Your task to perform on an android device: allow cookies in the chrome app Image 0: 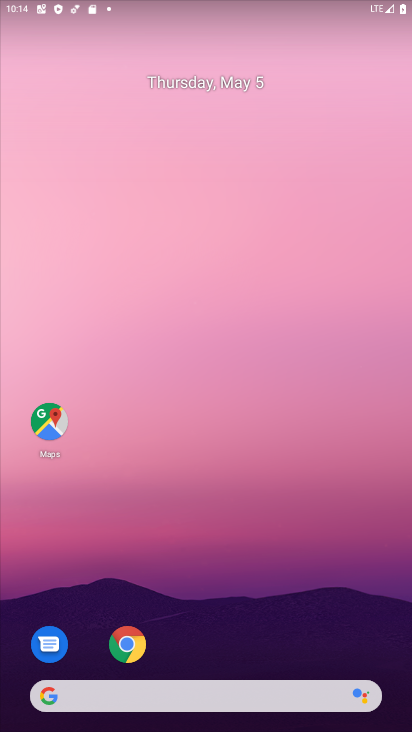
Step 0: click (122, 642)
Your task to perform on an android device: allow cookies in the chrome app Image 1: 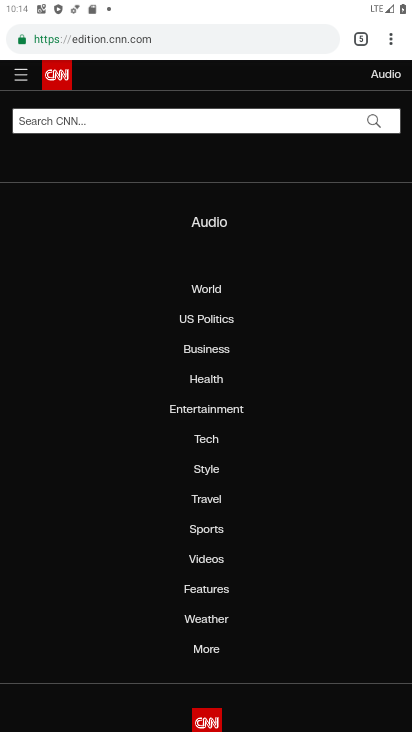
Step 1: click (387, 39)
Your task to perform on an android device: allow cookies in the chrome app Image 2: 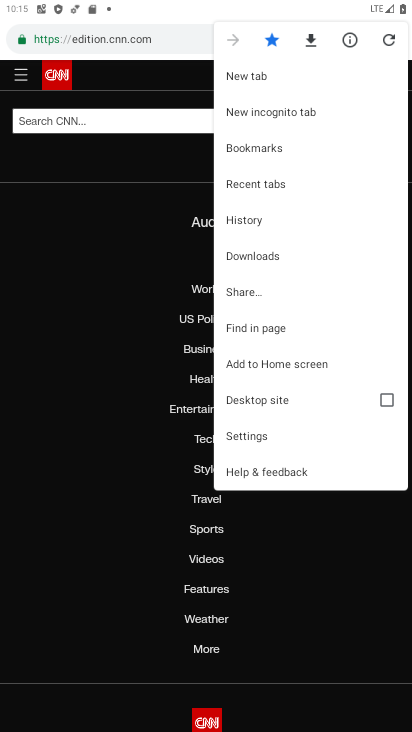
Step 2: click (260, 426)
Your task to perform on an android device: allow cookies in the chrome app Image 3: 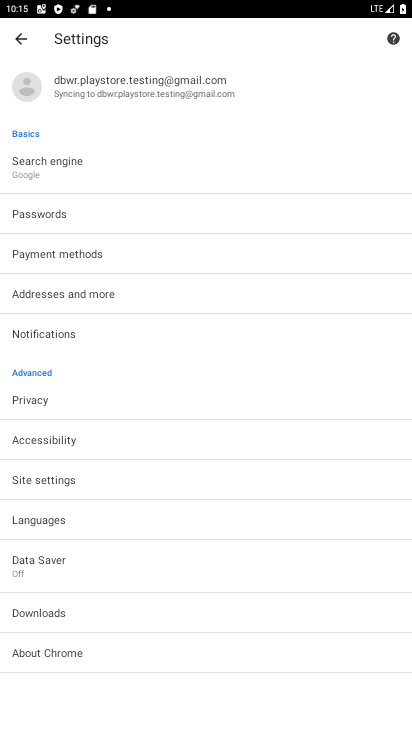
Step 3: click (51, 477)
Your task to perform on an android device: allow cookies in the chrome app Image 4: 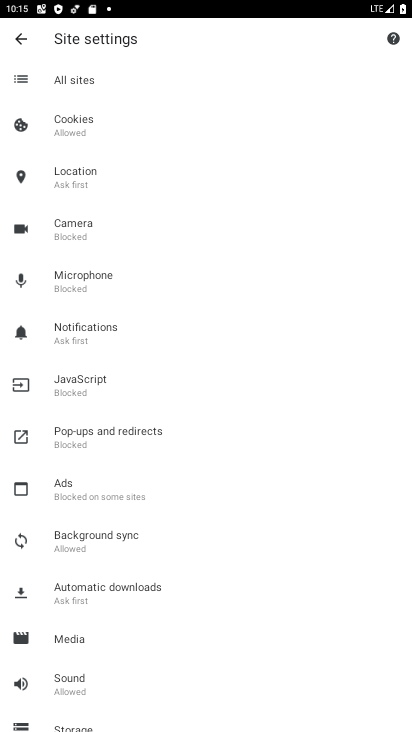
Step 4: click (80, 114)
Your task to perform on an android device: allow cookies in the chrome app Image 5: 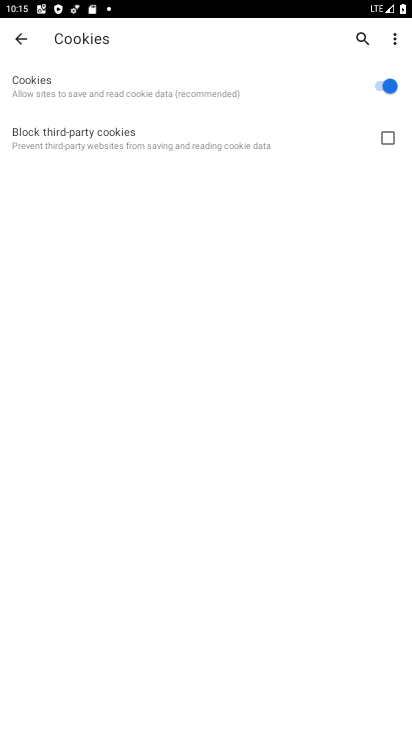
Step 5: press home button
Your task to perform on an android device: allow cookies in the chrome app Image 6: 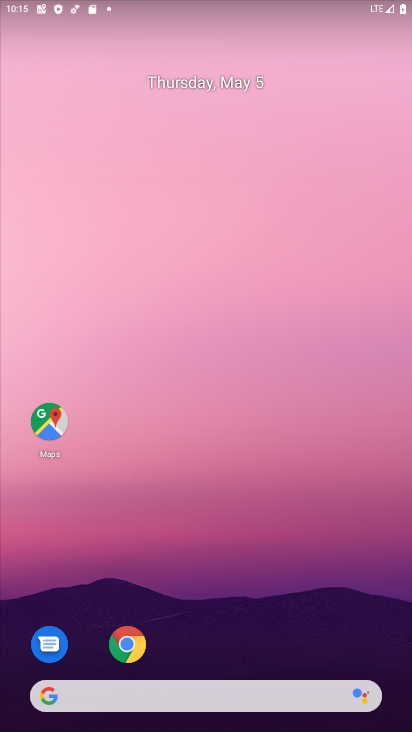
Step 6: click (142, 649)
Your task to perform on an android device: allow cookies in the chrome app Image 7: 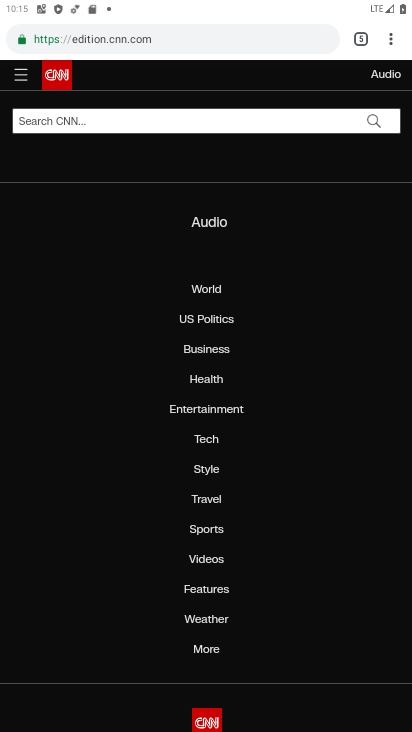
Step 7: click (391, 39)
Your task to perform on an android device: allow cookies in the chrome app Image 8: 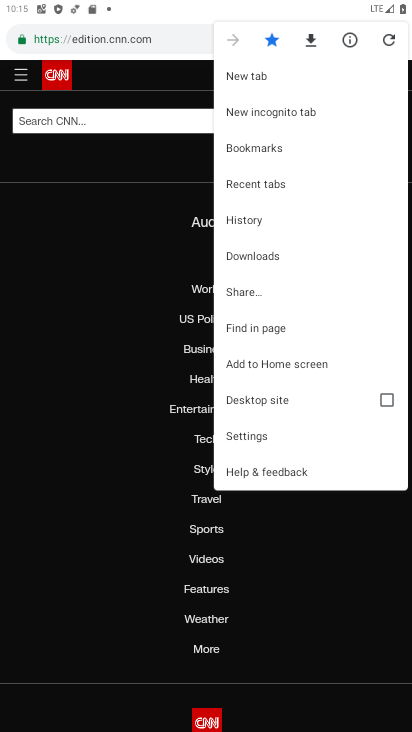
Step 8: click (254, 429)
Your task to perform on an android device: allow cookies in the chrome app Image 9: 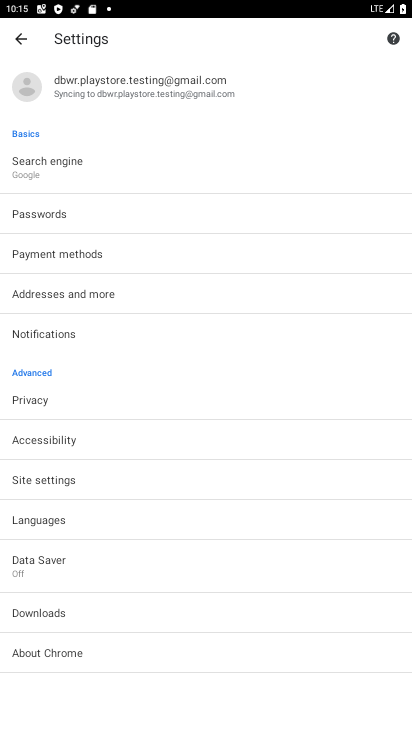
Step 9: click (69, 484)
Your task to perform on an android device: allow cookies in the chrome app Image 10: 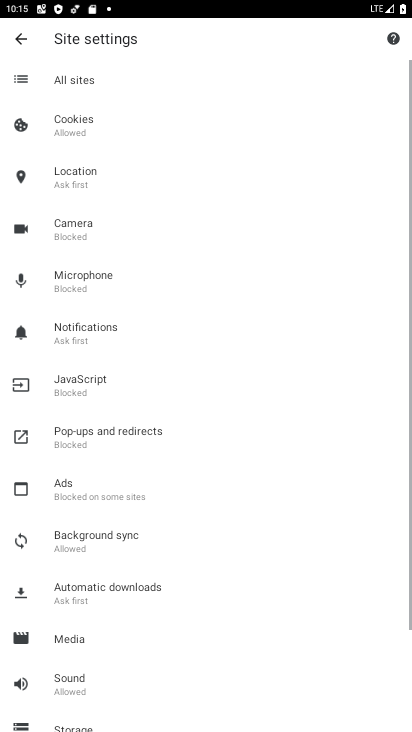
Step 10: drag from (69, 484) to (87, 312)
Your task to perform on an android device: allow cookies in the chrome app Image 11: 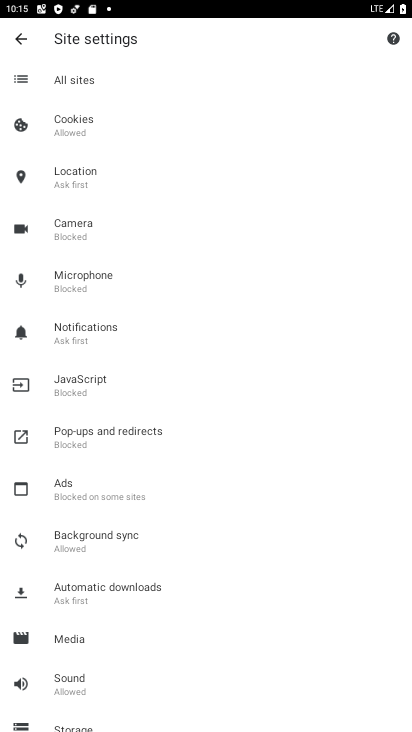
Step 11: click (114, 146)
Your task to perform on an android device: allow cookies in the chrome app Image 12: 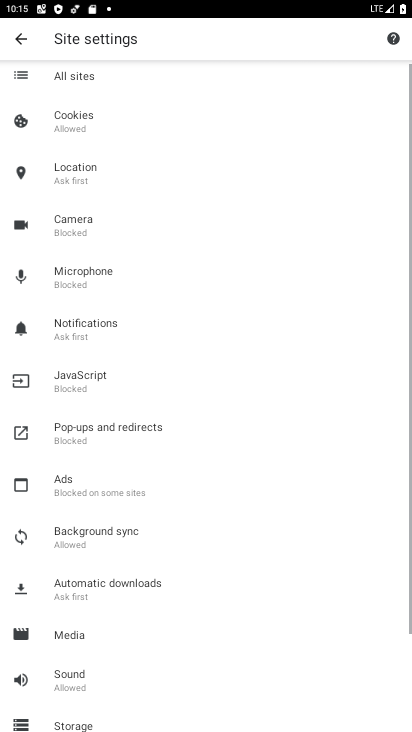
Step 12: click (93, 136)
Your task to perform on an android device: allow cookies in the chrome app Image 13: 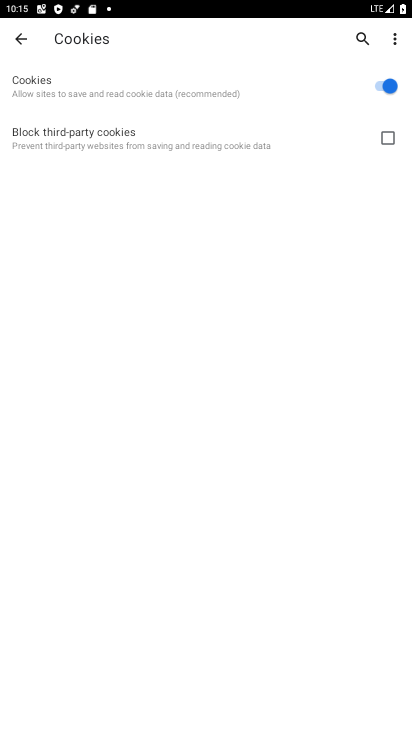
Step 13: click (93, 136)
Your task to perform on an android device: allow cookies in the chrome app Image 14: 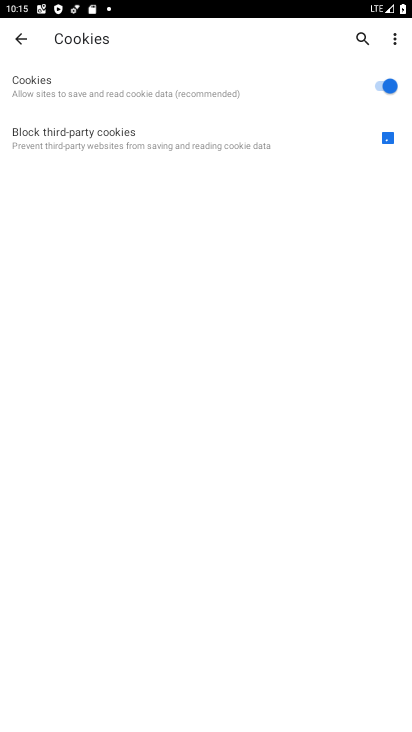
Step 14: task complete